Your task to perform on an android device: Open location settings Image 0: 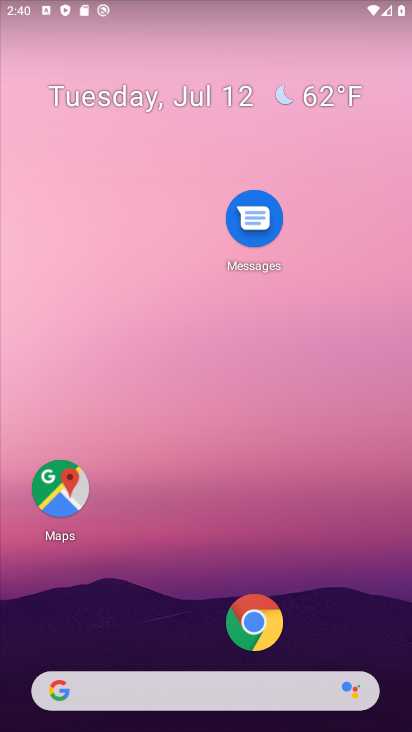
Step 0: drag from (196, 444) to (217, 85)
Your task to perform on an android device: Open location settings Image 1: 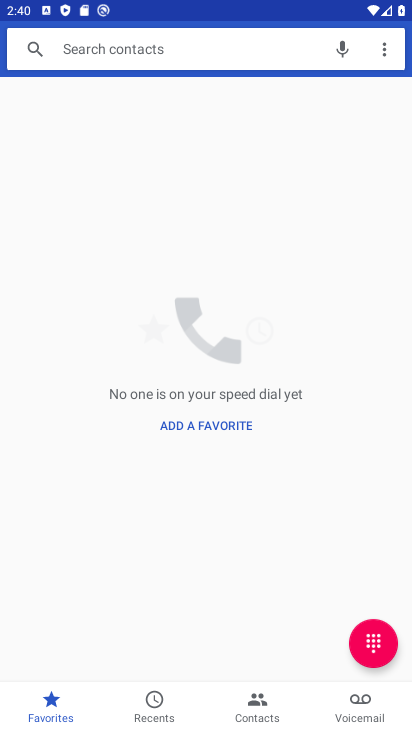
Step 1: press home button
Your task to perform on an android device: Open location settings Image 2: 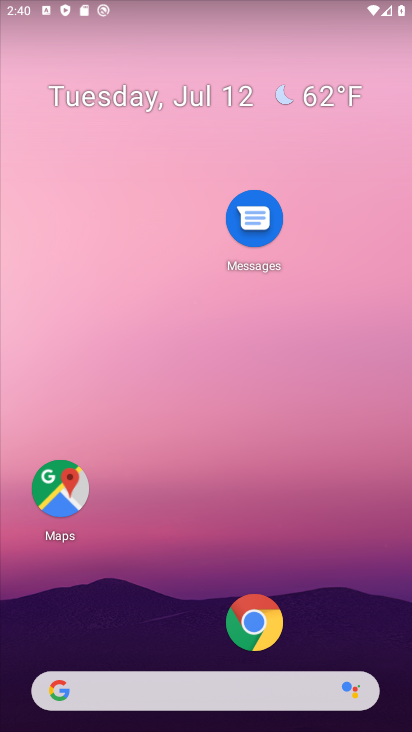
Step 2: drag from (197, 647) to (224, 87)
Your task to perform on an android device: Open location settings Image 3: 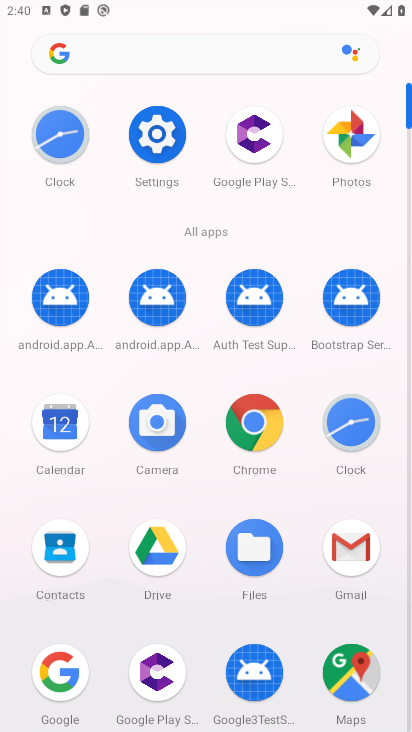
Step 3: click (151, 128)
Your task to perform on an android device: Open location settings Image 4: 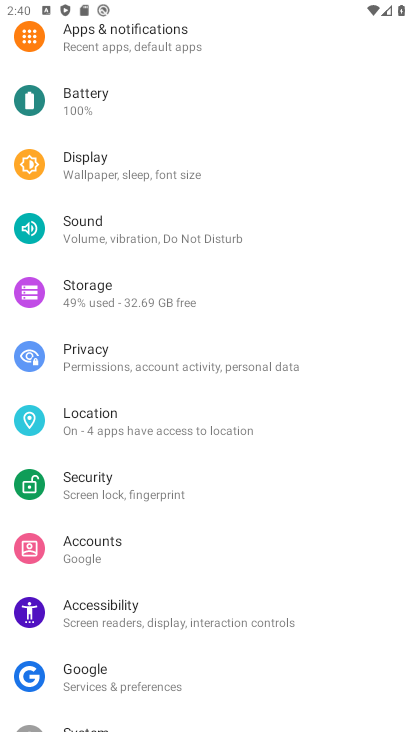
Step 4: click (143, 411)
Your task to perform on an android device: Open location settings Image 5: 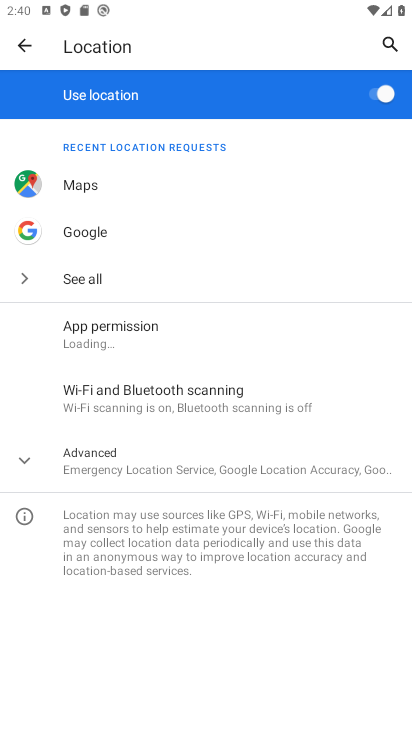
Step 5: click (23, 455)
Your task to perform on an android device: Open location settings Image 6: 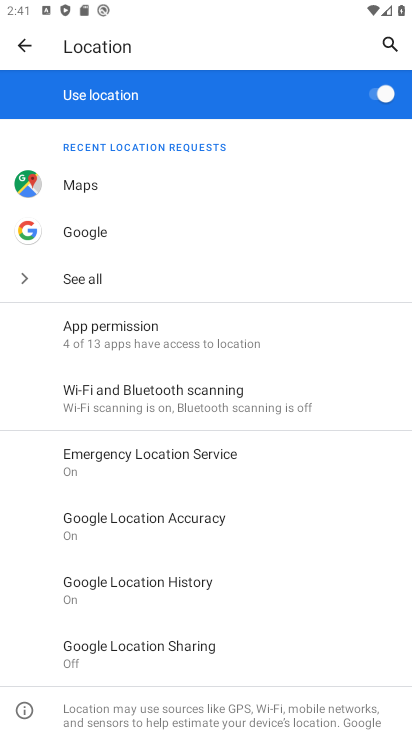
Step 6: task complete